Your task to perform on an android device: find which apps use the phone's location Image 0: 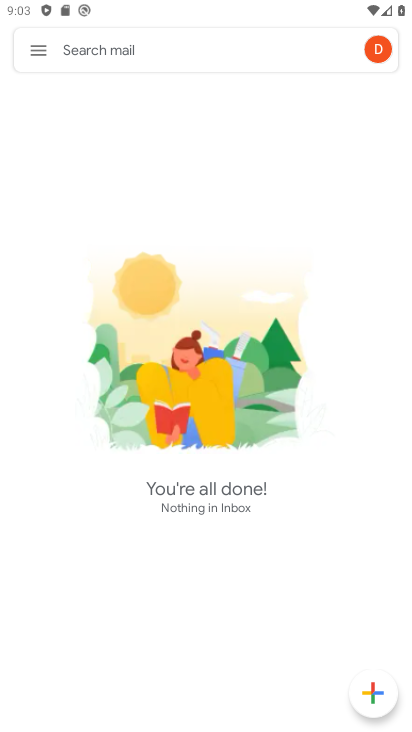
Step 0: press home button
Your task to perform on an android device: find which apps use the phone's location Image 1: 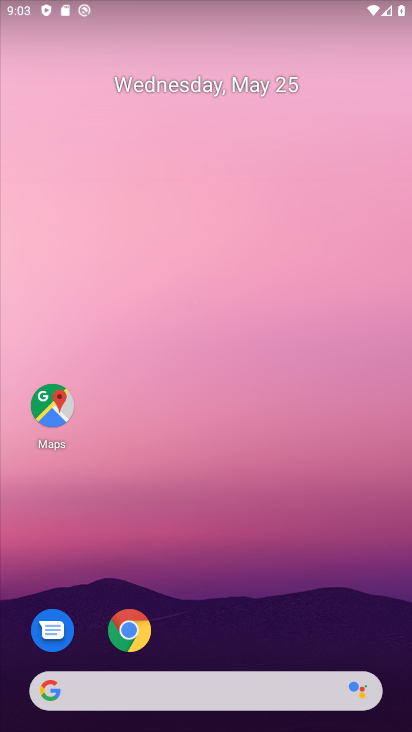
Step 1: drag from (235, 626) to (234, 1)
Your task to perform on an android device: find which apps use the phone's location Image 2: 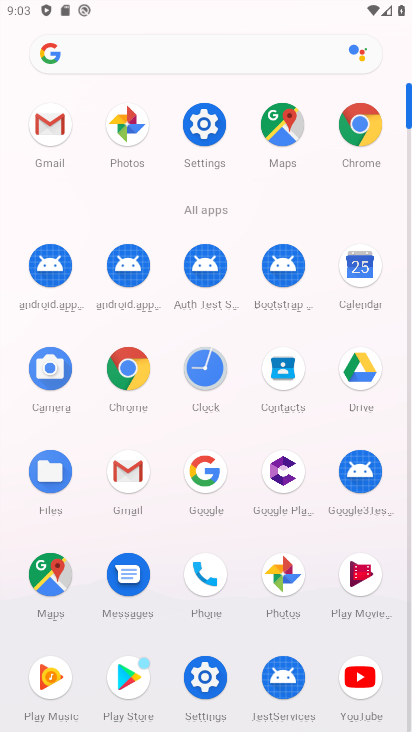
Step 2: click (196, 122)
Your task to perform on an android device: find which apps use the phone's location Image 3: 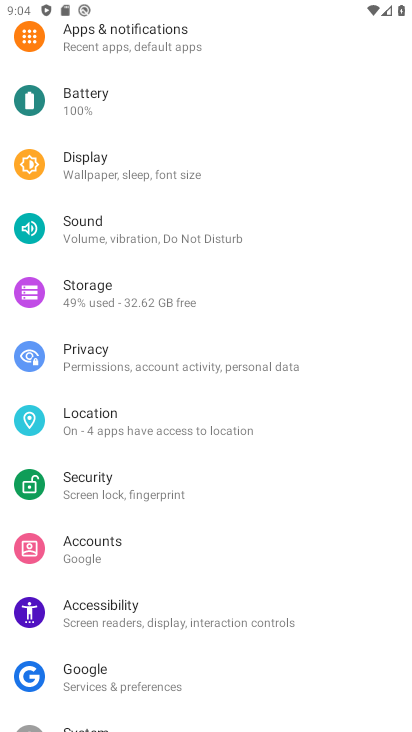
Step 3: click (123, 416)
Your task to perform on an android device: find which apps use the phone's location Image 4: 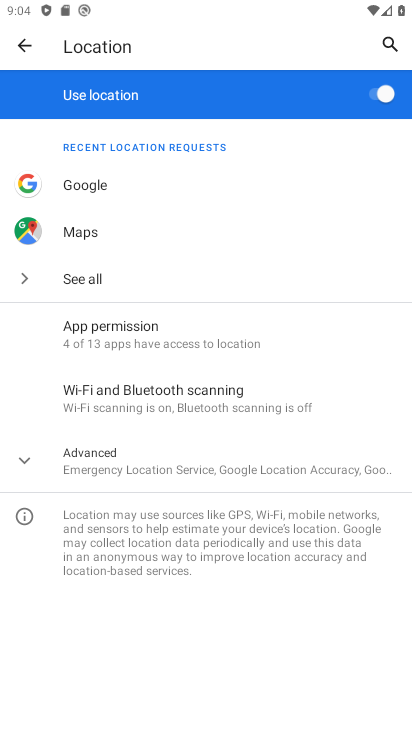
Step 4: click (85, 456)
Your task to perform on an android device: find which apps use the phone's location Image 5: 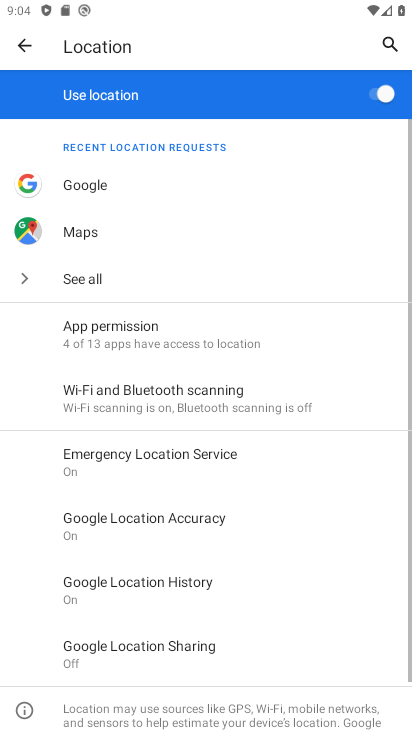
Step 5: click (141, 324)
Your task to perform on an android device: find which apps use the phone's location Image 6: 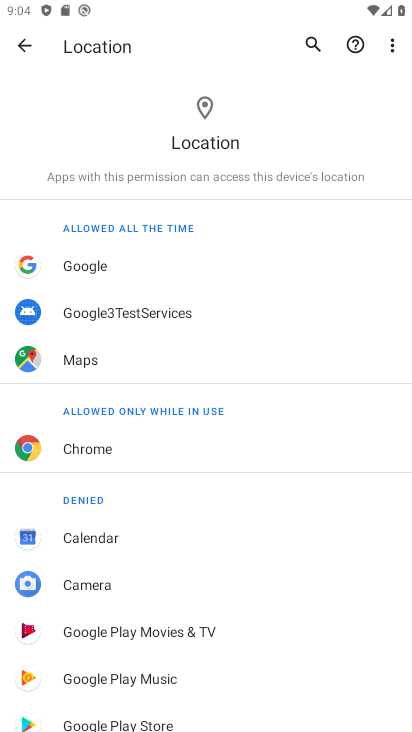
Step 6: task complete